Your task to perform on an android device: Go to Google Image 0: 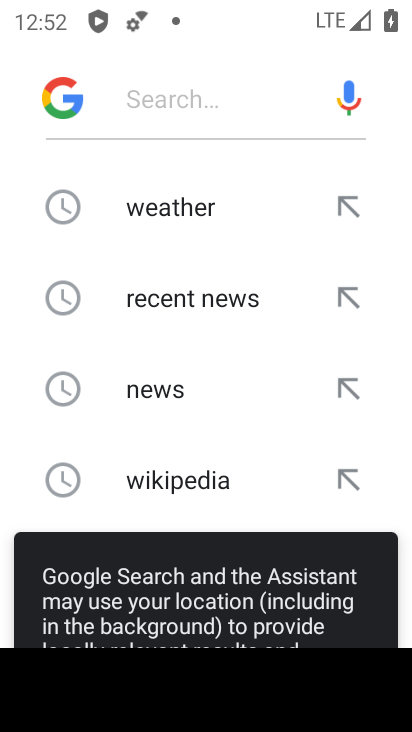
Step 0: press home button
Your task to perform on an android device: Go to Google Image 1: 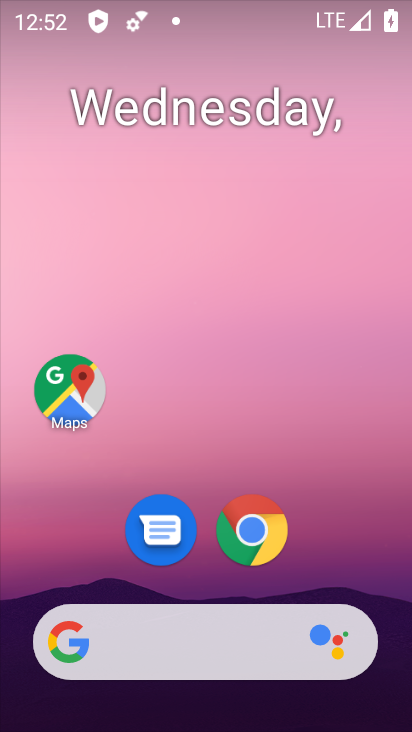
Step 1: drag from (364, 560) to (368, 138)
Your task to perform on an android device: Go to Google Image 2: 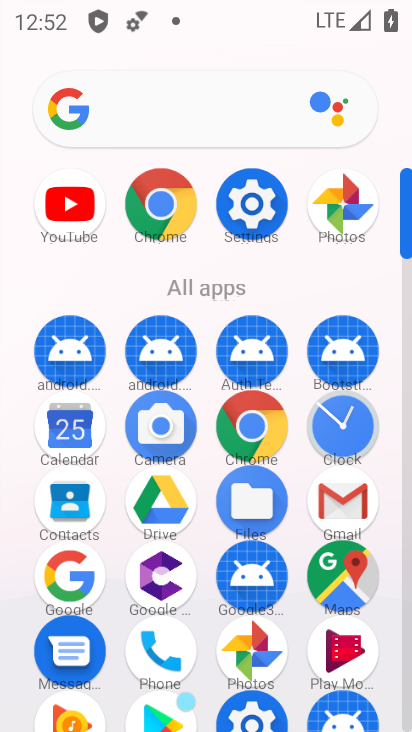
Step 2: click (55, 575)
Your task to perform on an android device: Go to Google Image 3: 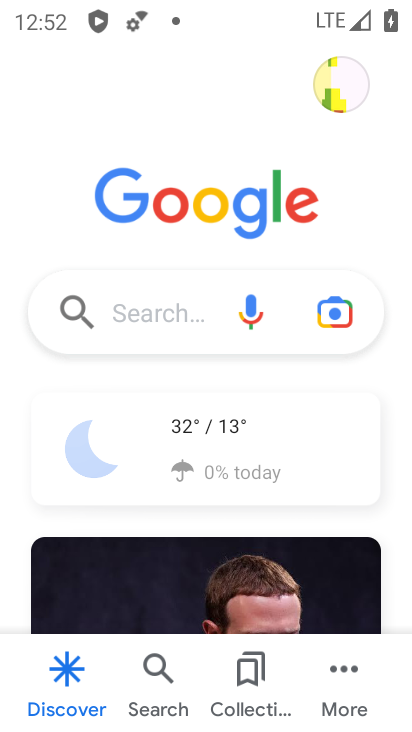
Step 3: task complete